Your task to perform on an android device: What's the weather going to be tomorrow? Image 0: 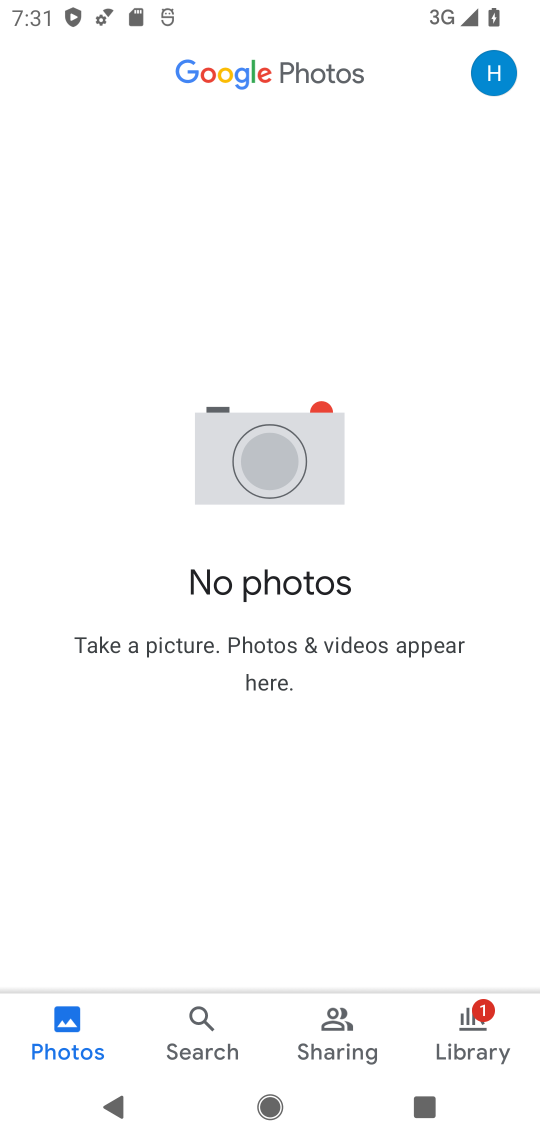
Step 0: press home button
Your task to perform on an android device: What's the weather going to be tomorrow? Image 1: 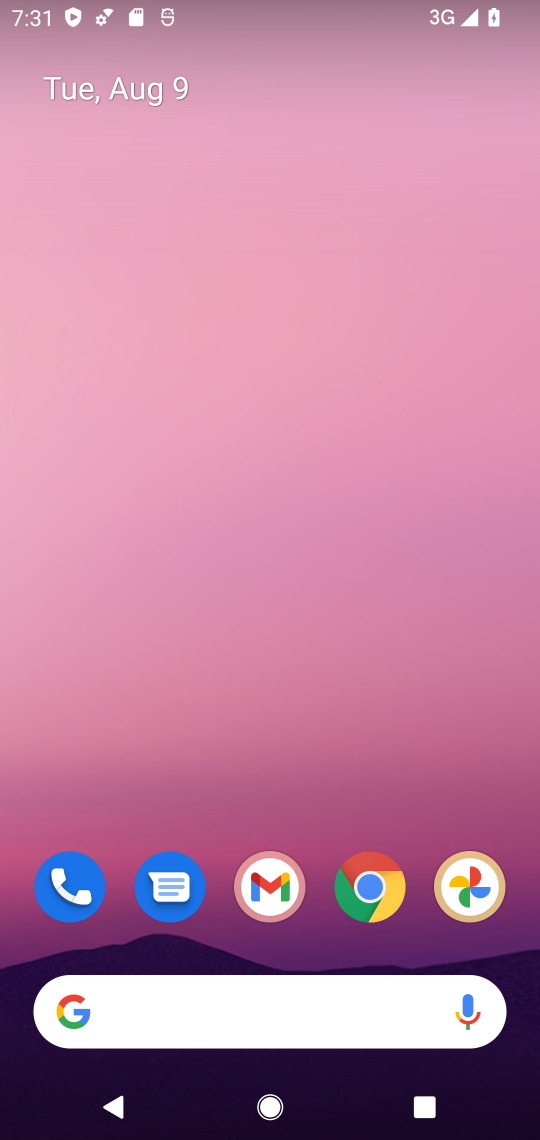
Step 1: click (244, 1007)
Your task to perform on an android device: What's the weather going to be tomorrow? Image 2: 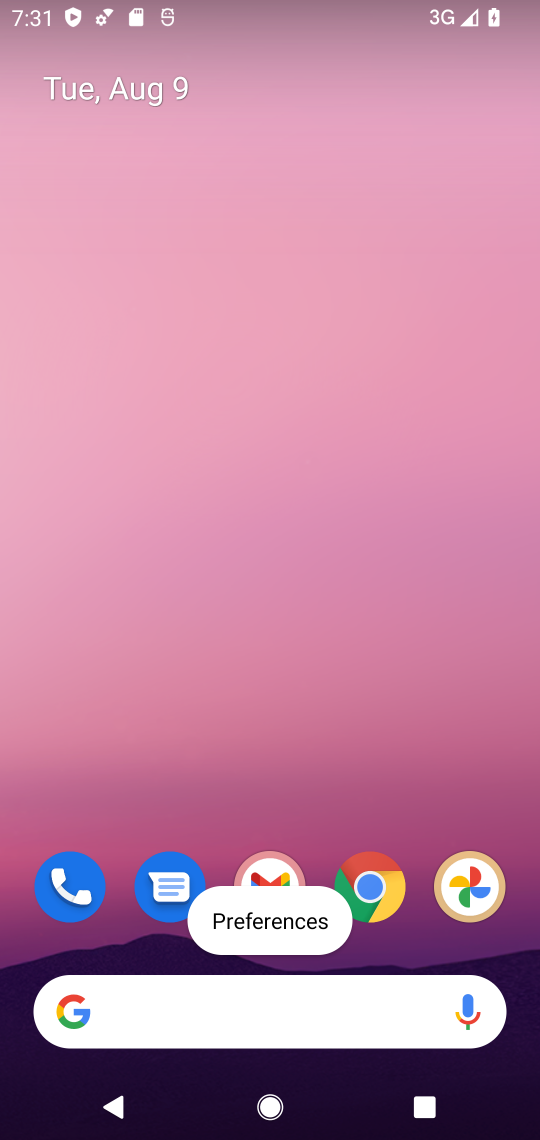
Step 2: click (246, 1007)
Your task to perform on an android device: What's the weather going to be tomorrow? Image 3: 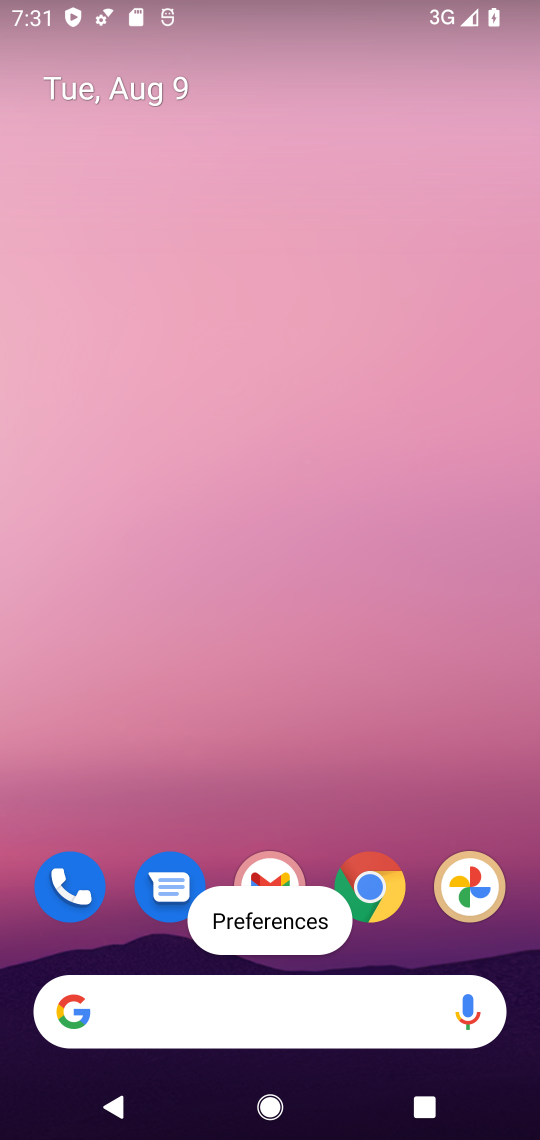
Step 3: click (235, 1014)
Your task to perform on an android device: What's the weather going to be tomorrow? Image 4: 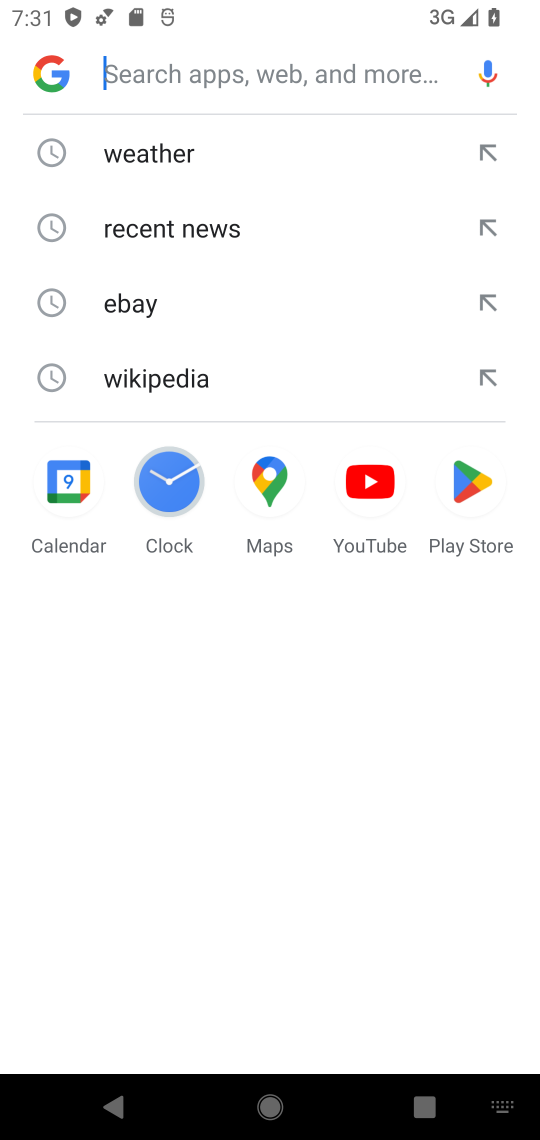
Step 4: click (171, 151)
Your task to perform on an android device: What's the weather going to be tomorrow? Image 5: 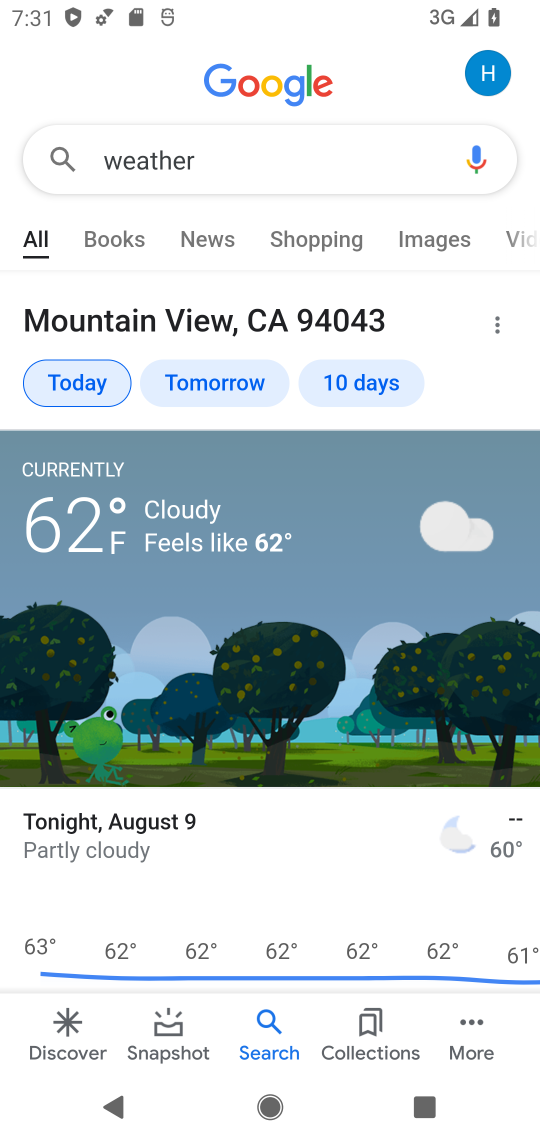
Step 5: click (201, 383)
Your task to perform on an android device: What's the weather going to be tomorrow? Image 6: 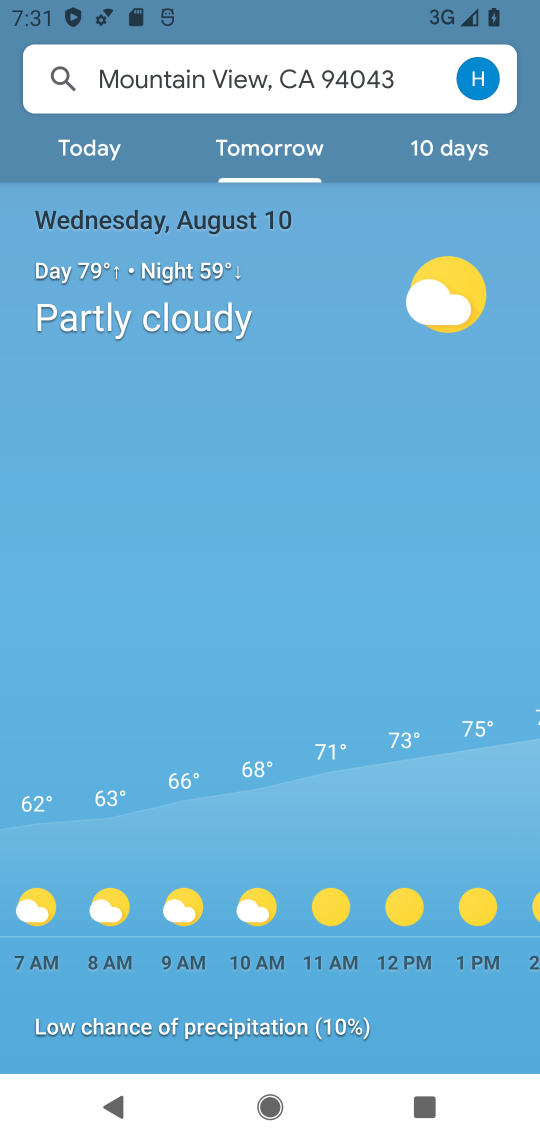
Step 6: task complete